Your task to perform on an android device: How much does a 2 bedroom apartment rent for in Portland? Image 0: 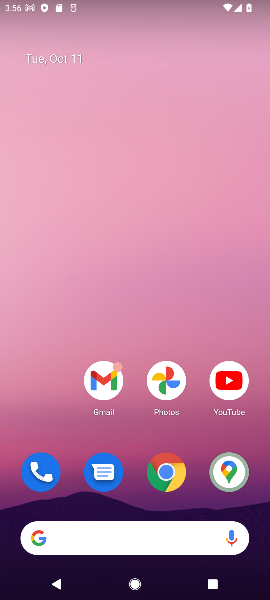
Step 0: click (186, 534)
Your task to perform on an android device: How much does a 2 bedroom apartment rent for in Portland? Image 1: 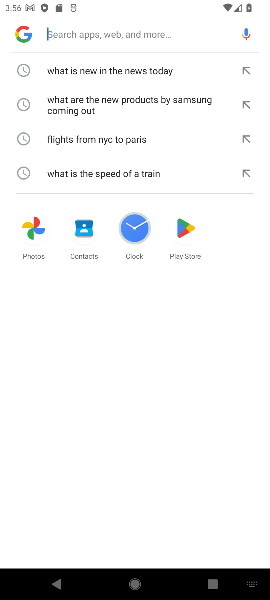
Step 1: type "How much does a 2 bedroom apartment rent for in Portland?"
Your task to perform on an android device: How much does a 2 bedroom apartment rent for in Portland? Image 2: 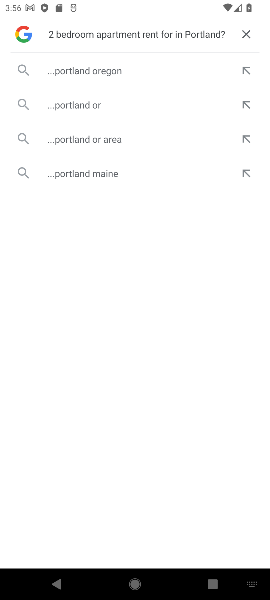
Step 2: click (107, 68)
Your task to perform on an android device: How much does a 2 bedroom apartment rent for in Portland? Image 3: 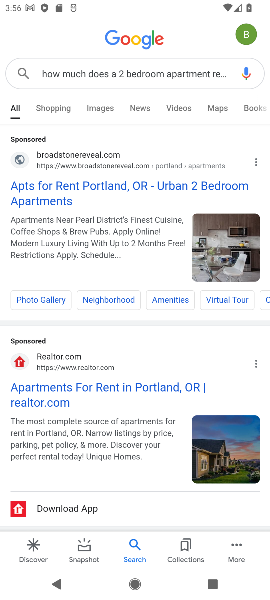
Step 3: task complete